Your task to perform on an android device: Show me productivity apps on the Play Store Image 0: 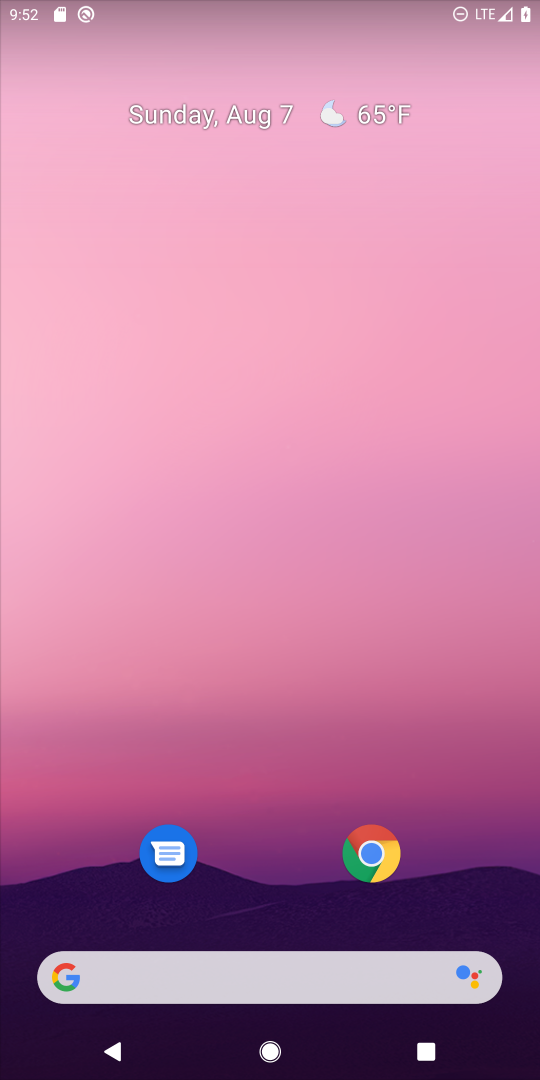
Step 0: drag from (264, 636) to (264, 200)
Your task to perform on an android device: Show me productivity apps on the Play Store Image 1: 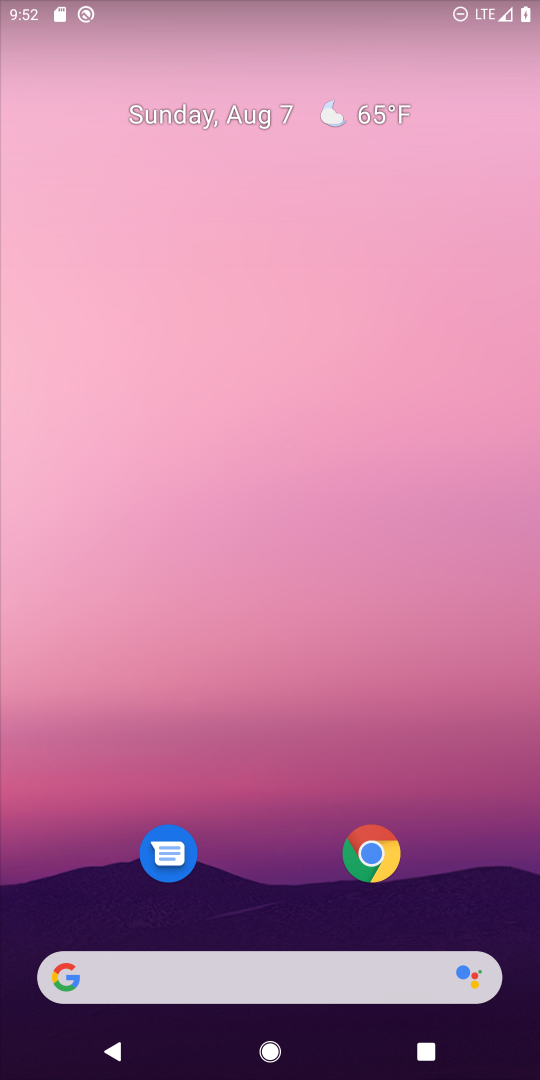
Step 1: drag from (253, 935) to (265, 366)
Your task to perform on an android device: Show me productivity apps on the Play Store Image 2: 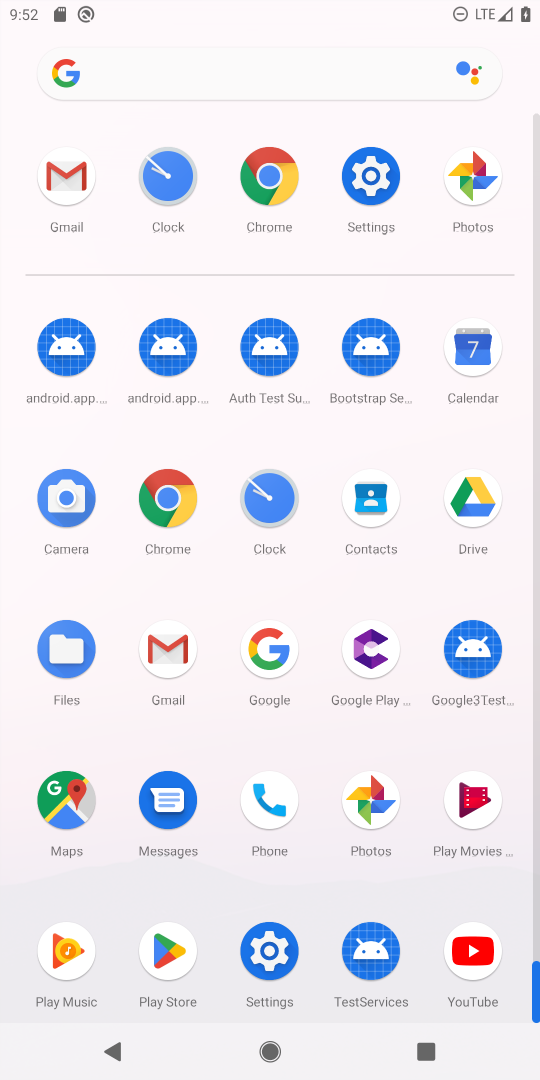
Step 2: click (167, 938)
Your task to perform on an android device: Show me productivity apps on the Play Store Image 3: 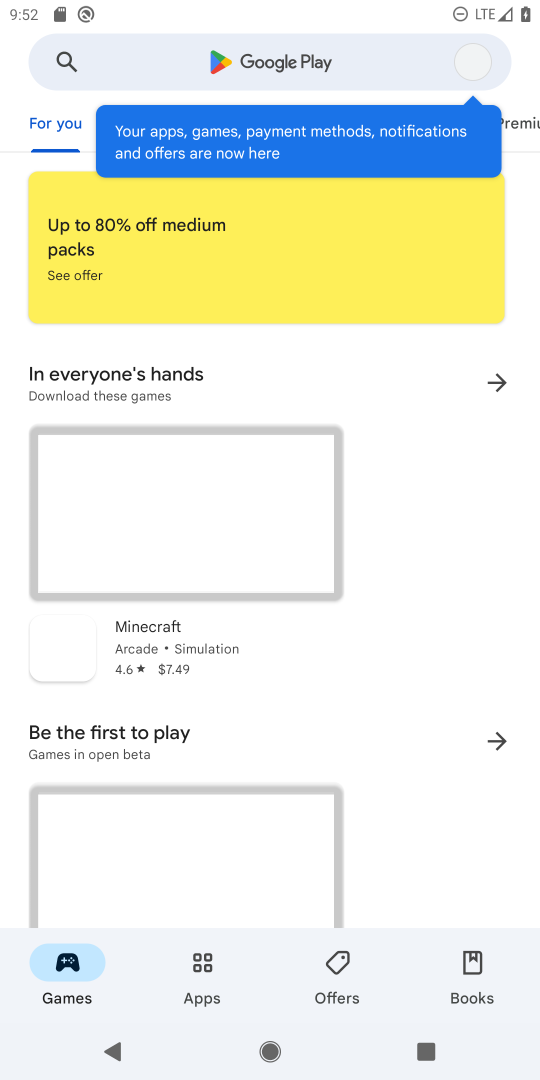
Step 3: click (206, 962)
Your task to perform on an android device: Show me productivity apps on the Play Store Image 4: 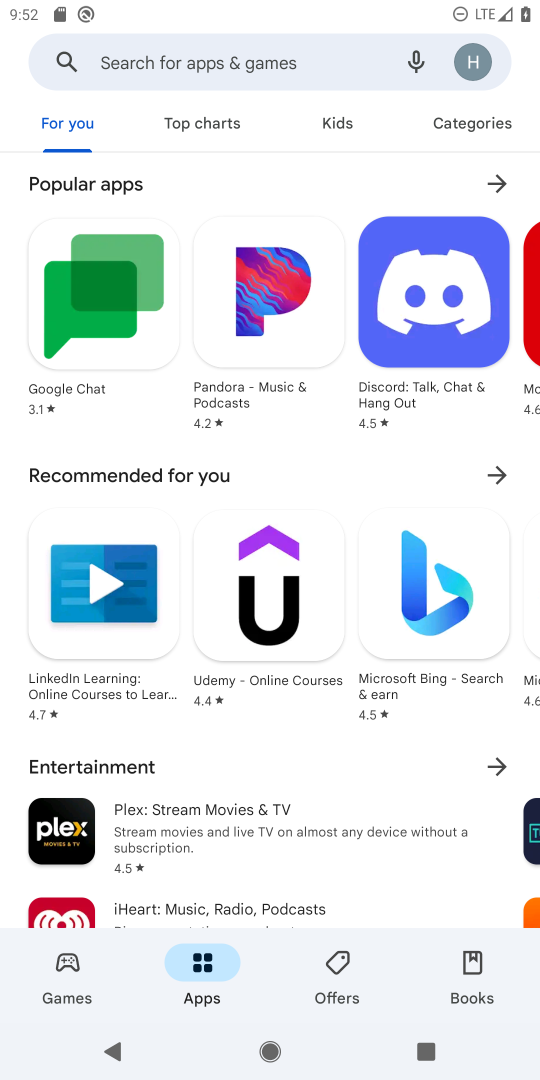
Step 4: task complete